Your task to perform on an android device: install app "Nova Launcher" Image 0: 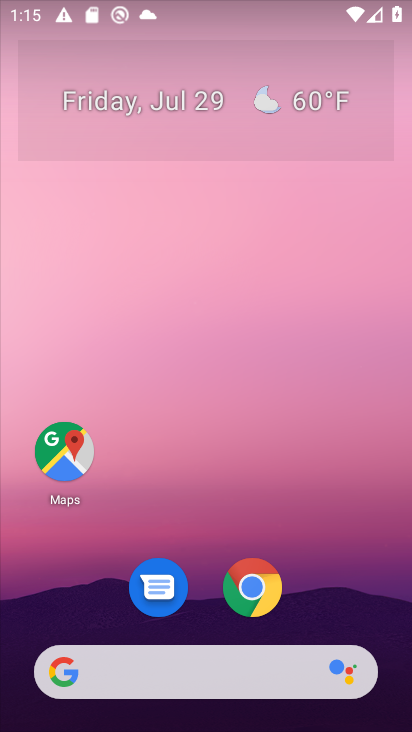
Step 0: drag from (217, 559) to (365, 14)
Your task to perform on an android device: install app "Nova Launcher" Image 1: 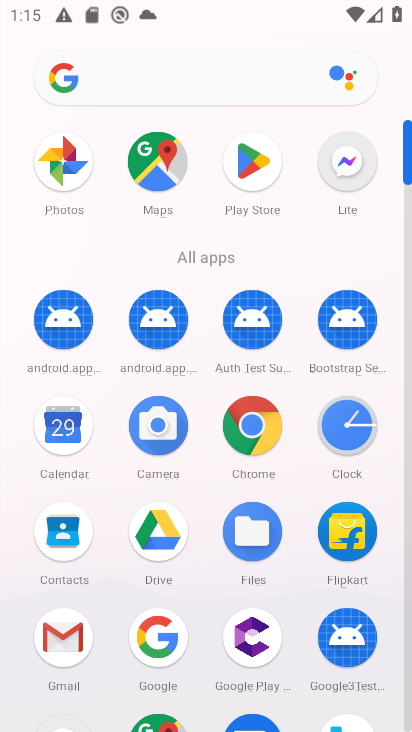
Step 1: click (243, 148)
Your task to perform on an android device: install app "Nova Launcher" Image 2: 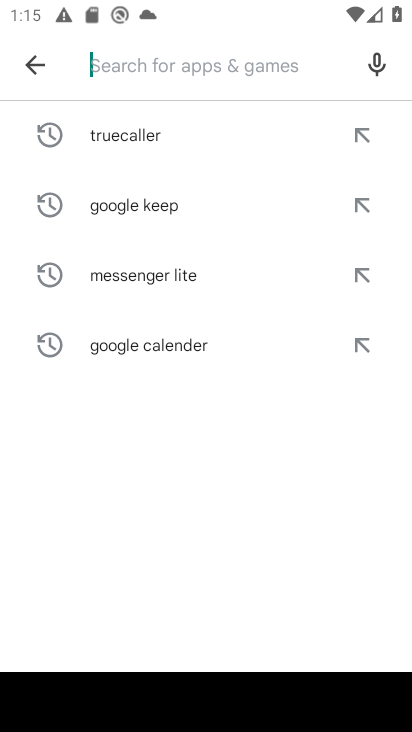
Step 2: type "nova launcher"
Your task to perform on an android device: install app "Nova Launcher" Image 3: 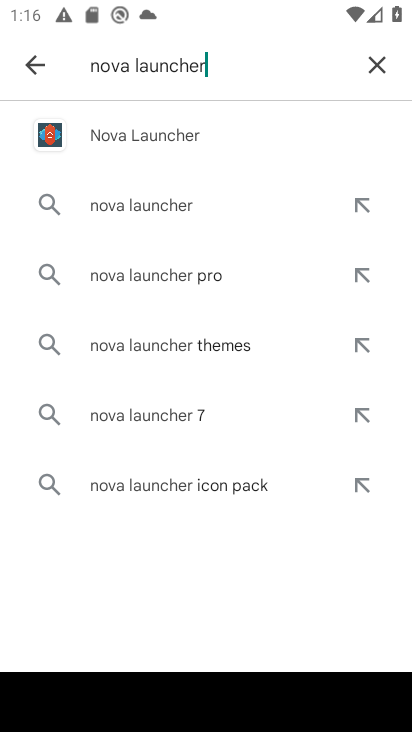
Step 3: click (192, 136)
Your task to perform on an android device: install app "Nova Launcher" Image 4: 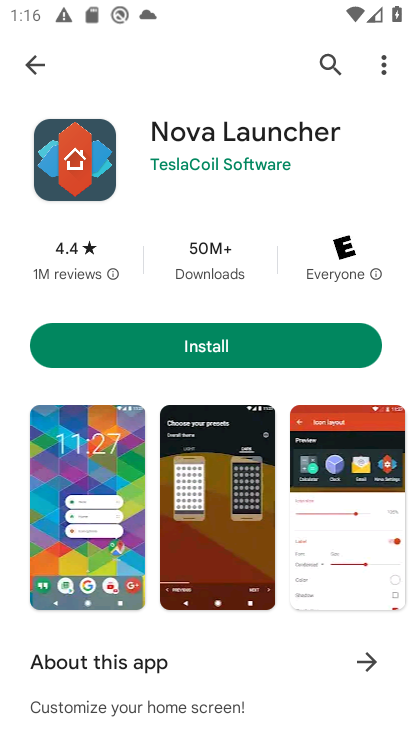
Step 4: click (185, 345)
Your task to perform on an android device: install app "Nova Launcher" Image 5: 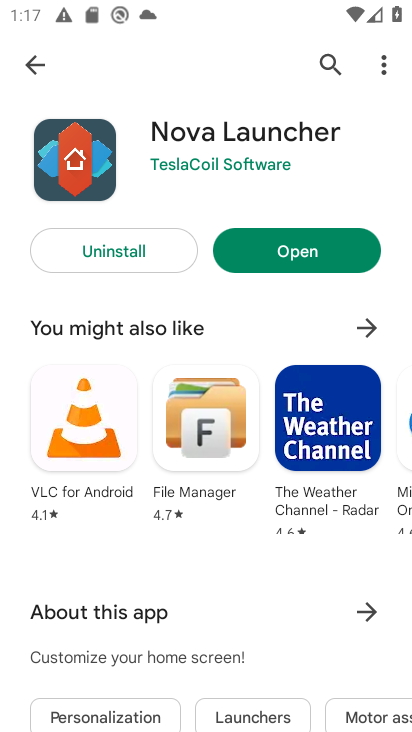
Step 5: task complete